Your task to perform on an android device: Search for a 3d printer on aliexpress Image 0: 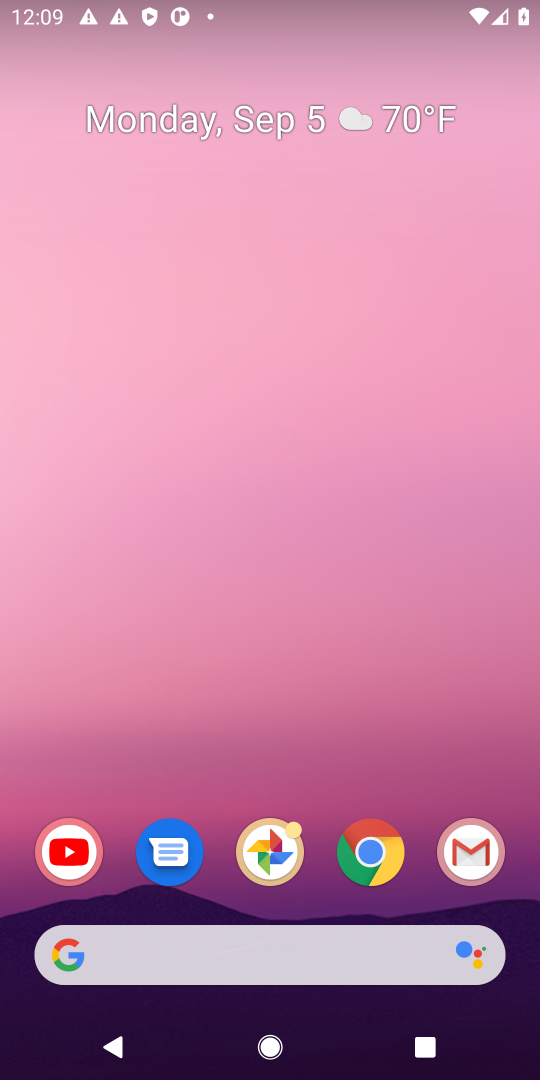
Step 0: click (368, 850)
Your task to perform on an android device: Search for a 3d printer on aliexpress Image 1: 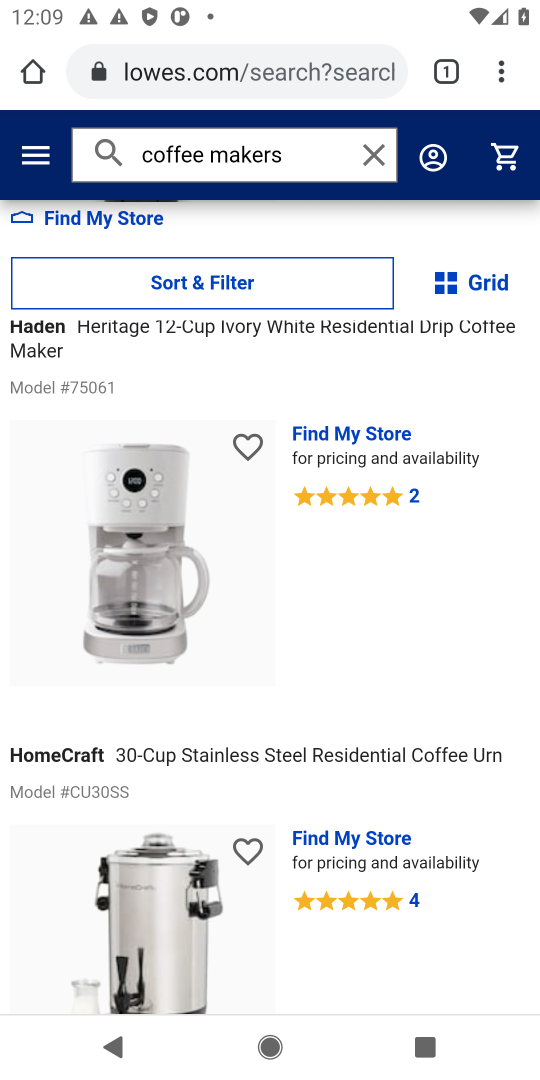
Step 1: click (275, 51)
Your task to perform on an android device: Search for a 3d printer on aliexpress Image 2: 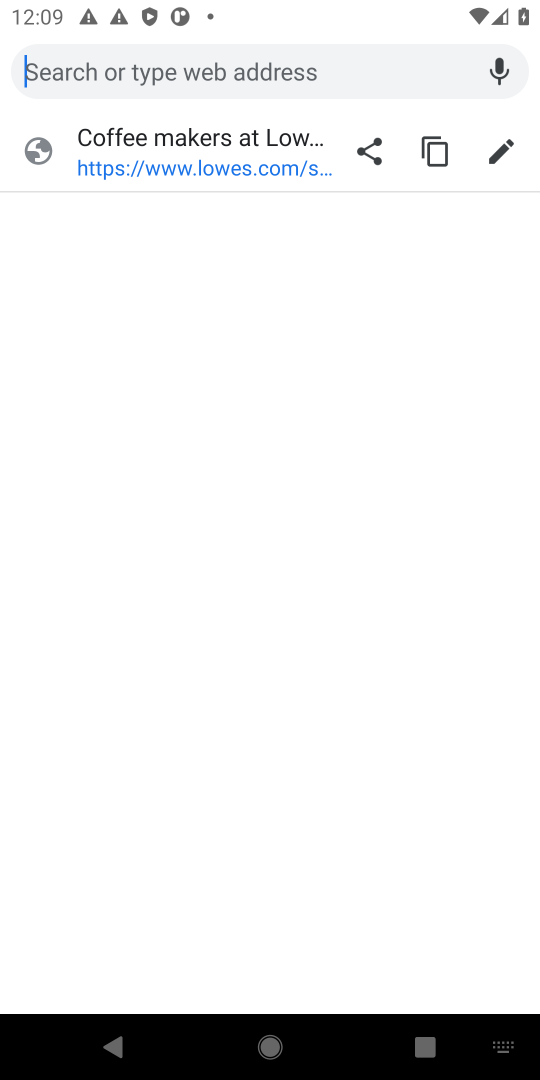
Step 2: type "aliexpress"
Your task to perform on an android device: Search for a 3d printer on aliexpress Image 3: 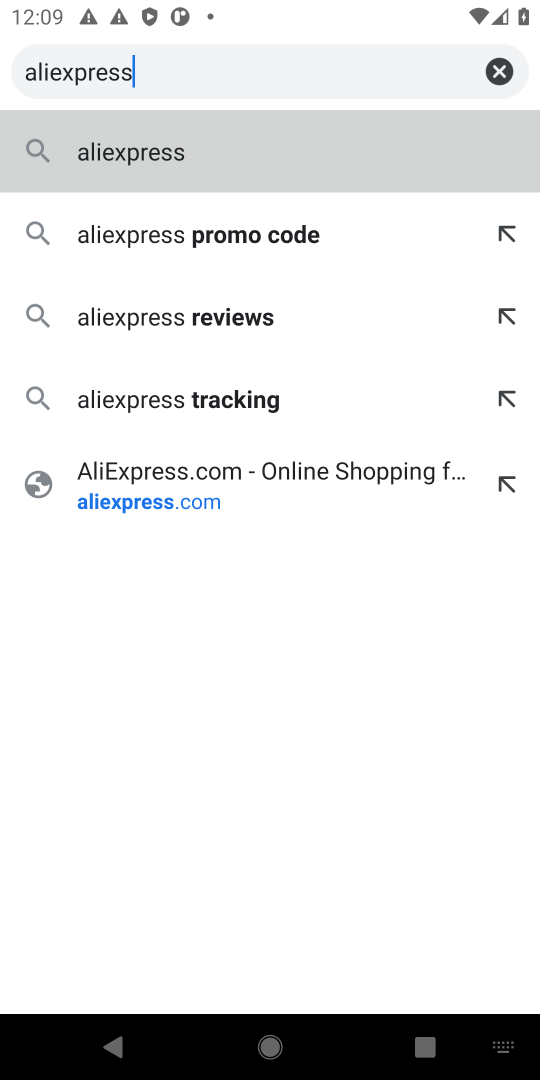
Step 3: click (152, 149)
Your task to perform on an android device: Search for a 3d printer on aliexpress Image 4: 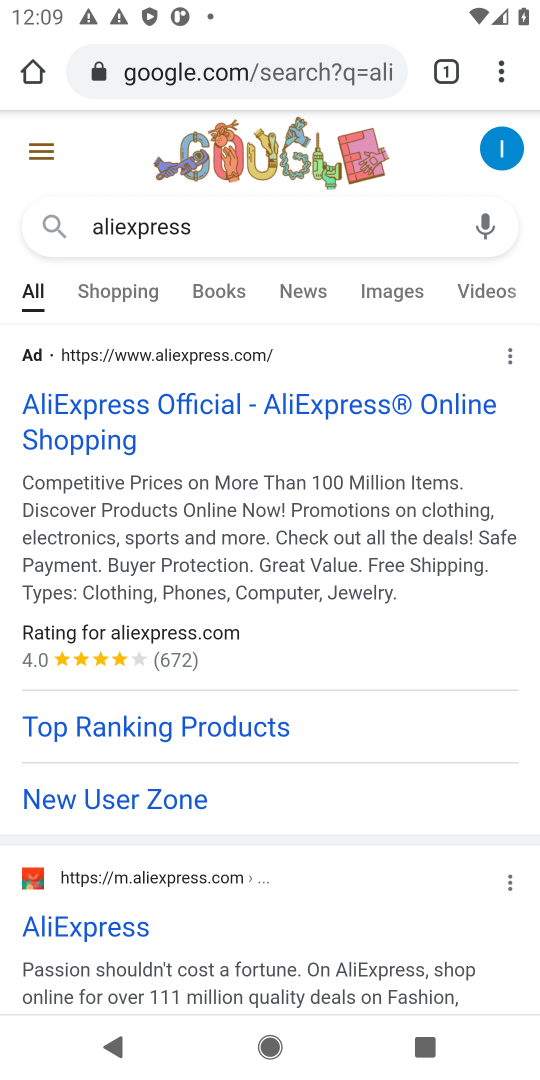
Step 4: click (94, 410)
Your task to perform on an android device: Search for a 3d printer on aliexpress Image 5: 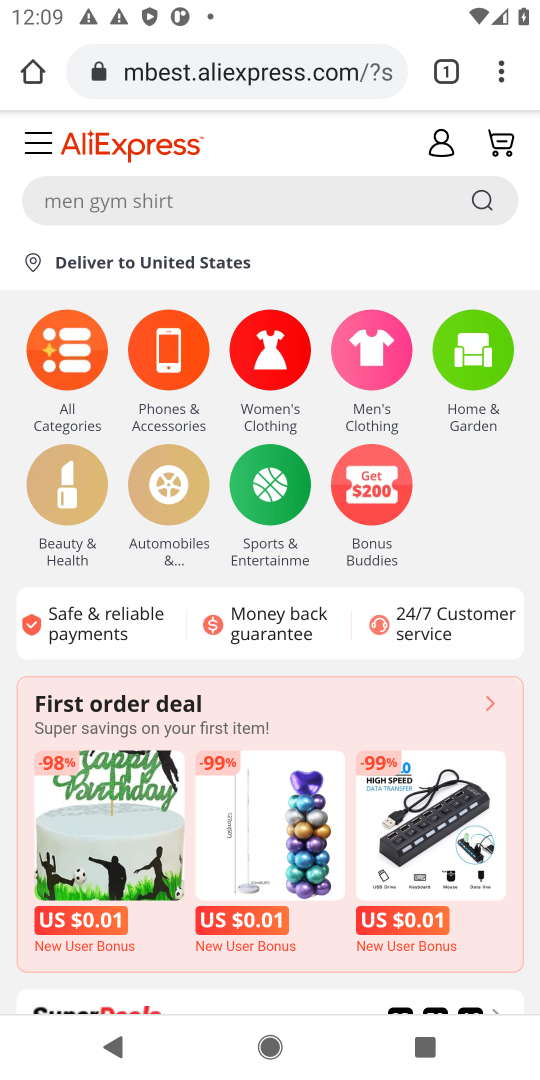
Step 5: click (147, 196)
Your task to perform on an android device: Search for a 3d printer on aliexpress Image 6: 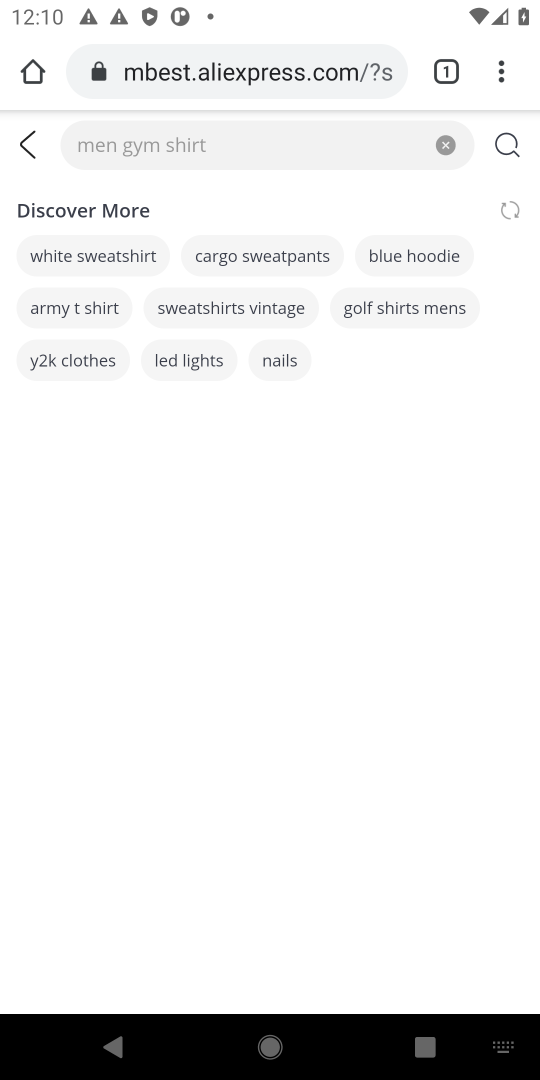
Step 6: type "3d printer"
Your task to perform on an android device: Search for a 3d printer on aliexpress Image 7: 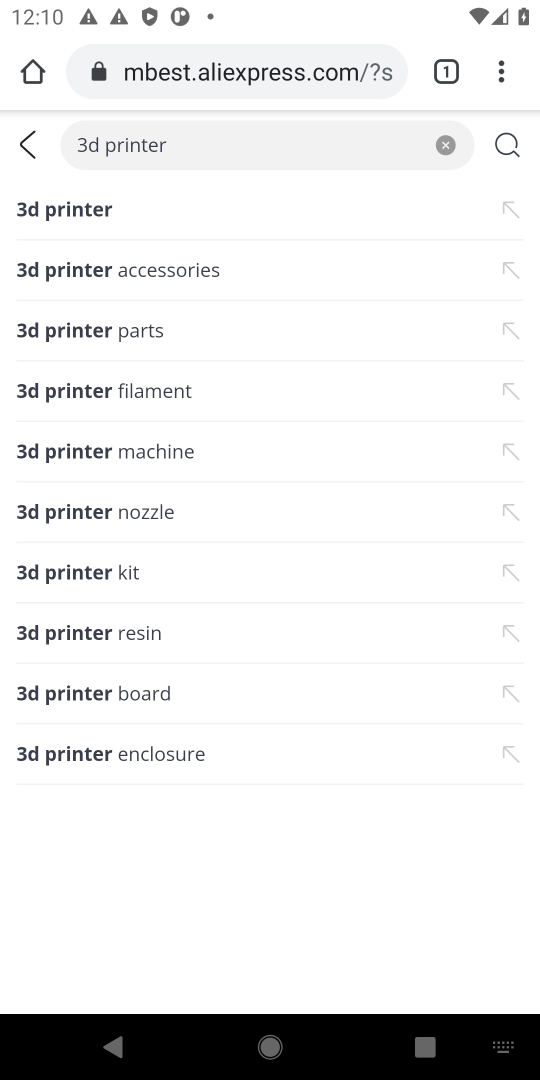
Step 7: click (59, 208)
Your task to perform on an android device: Search for a 3d printer on aliexpress Image 8: 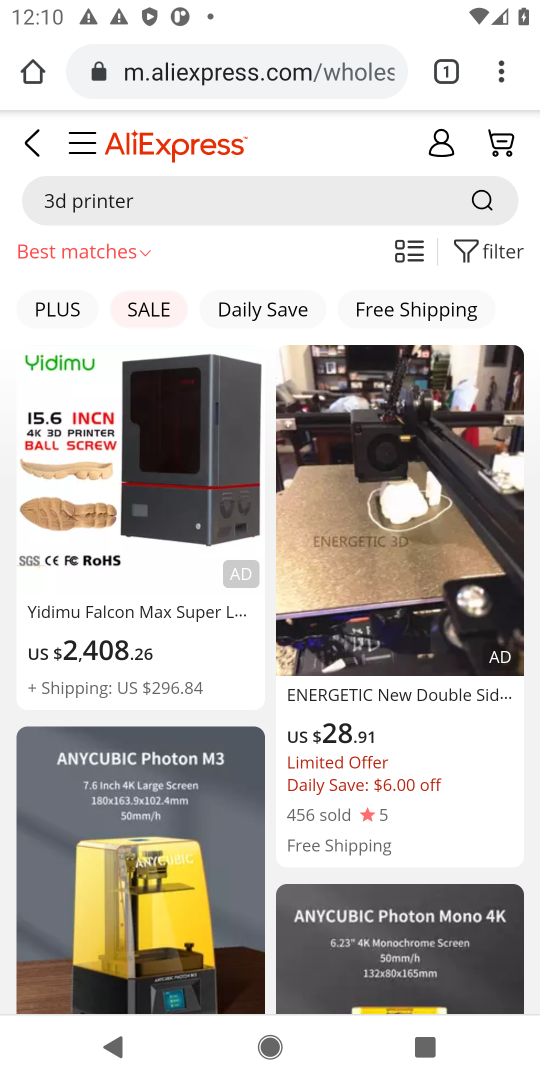
Step 8: drag from (271, 774) to (268, 469)
Your task to perform on an android device: Search for a 3d printer on aliexpress Image 9: 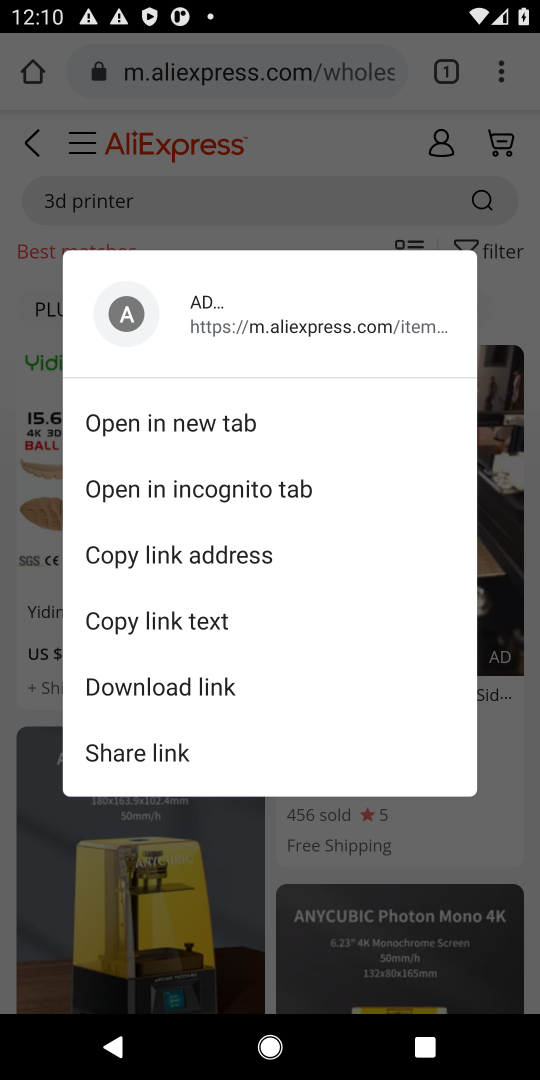
Step 9: click (271, 989)
Your task to perform on an android device: Search for a 3d printer on aliexpress Image 10: 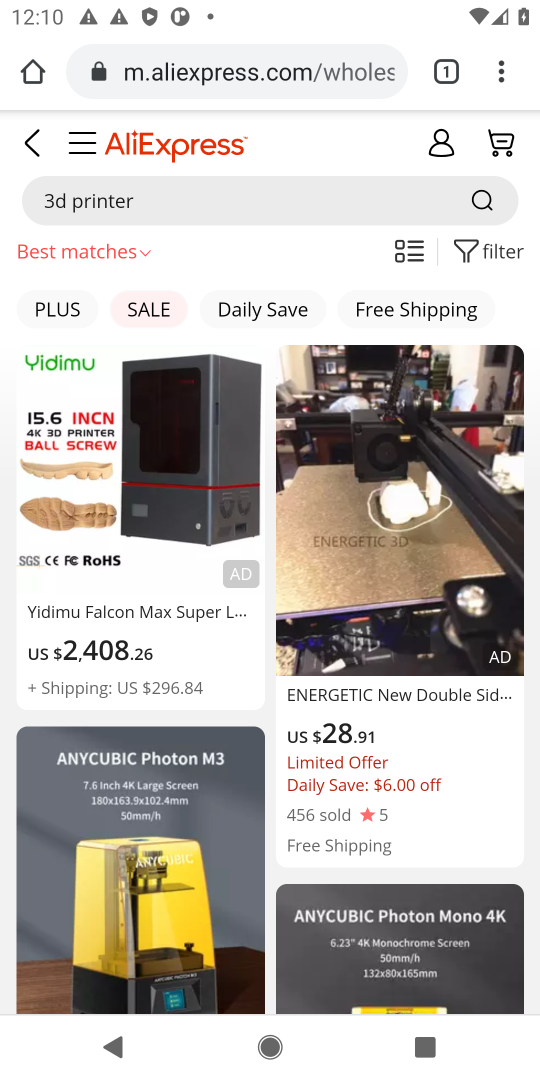
Step 10: drag from (271, 933) to (266, 556)
Your task to perform on an android device: Search for a 3d printer on aliexpress Image 11: 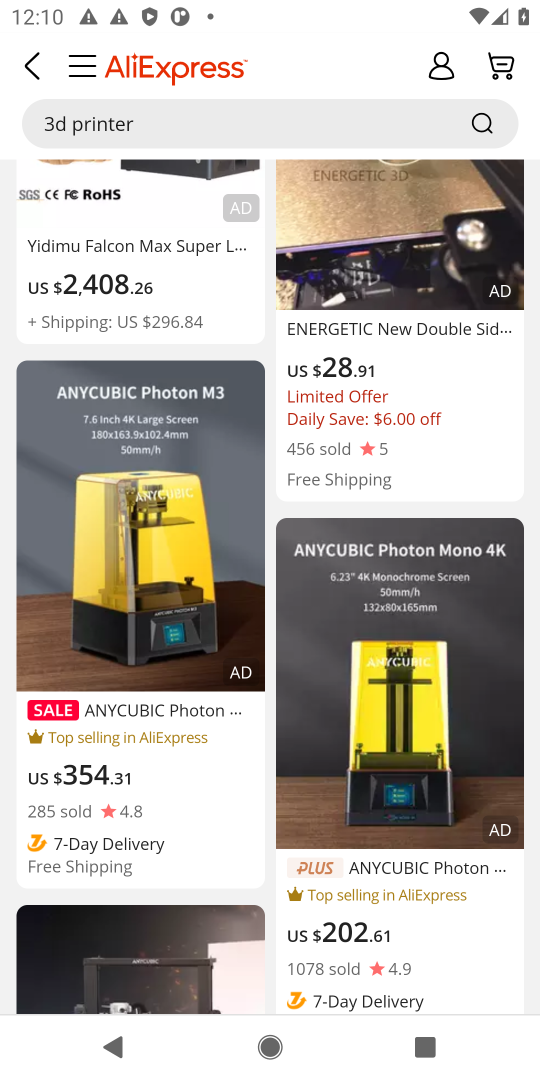
Step 11: drag from (274, 1000) to (275, 749)
Your task to perform on an android device: Search for a 3d printer on aliexpress Image 12: 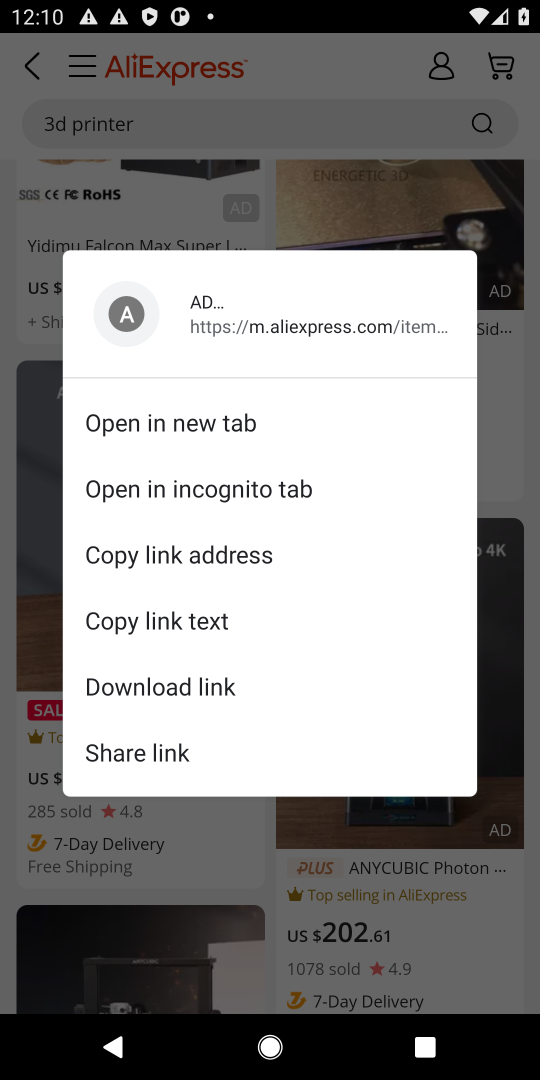
Step 12: click (274, 997)
Your task to perform on an android device: Search for a 3d printer on aliexpress Image 13: 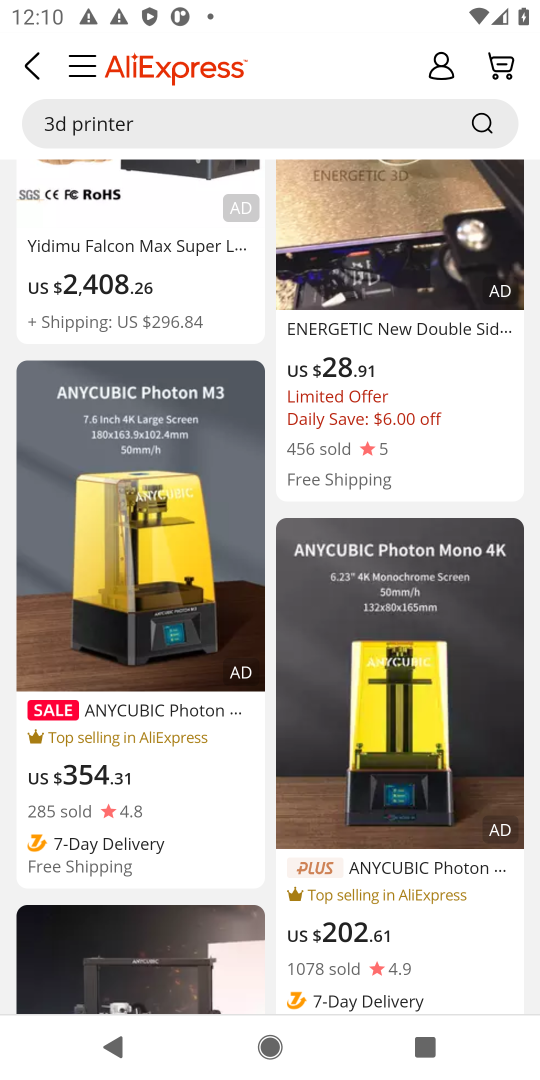
Step 13: task complete